Your task to perform on an android device: Search for seafood restaurants on Google Maps Image 0: 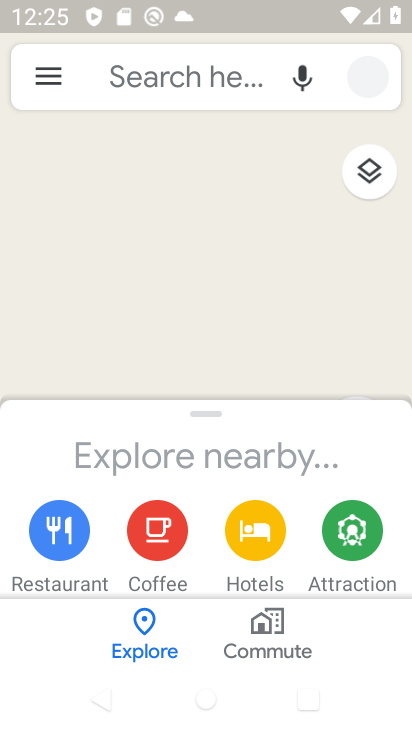
Step 0: drag from (198, 526) to (197, 92)
Your task to perform on an android device: Search for seafood restaurants on Google Maps Image 1: 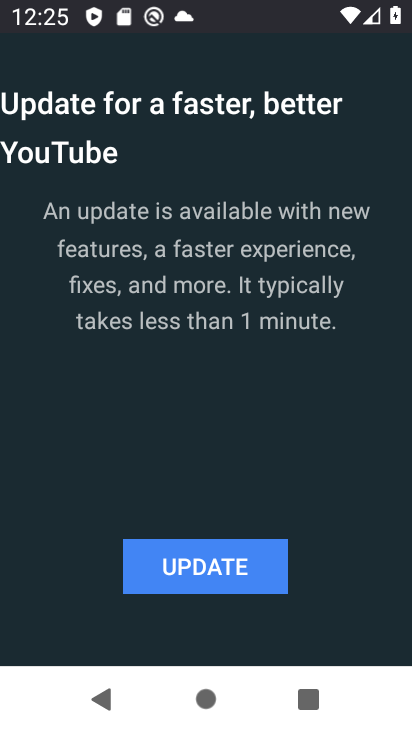
Step 1: press home button
Your task to perform on an android device: Search for seafood restaurants on Google Maps Image 2: 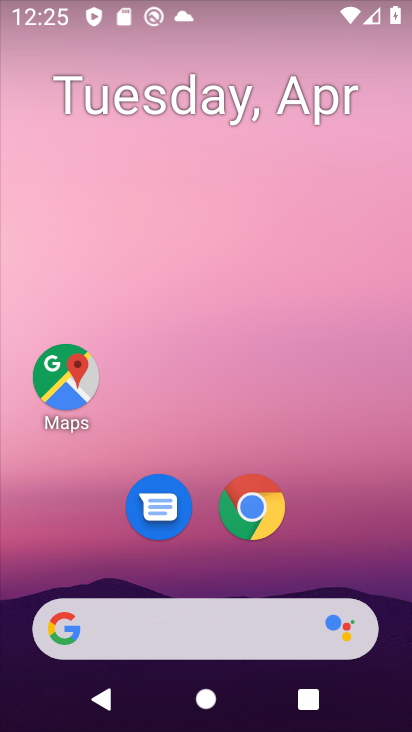
Step 2: click (48, 382)
Your task to perform on an android device: Search for seafood restaurants on Google Maps Image 3: 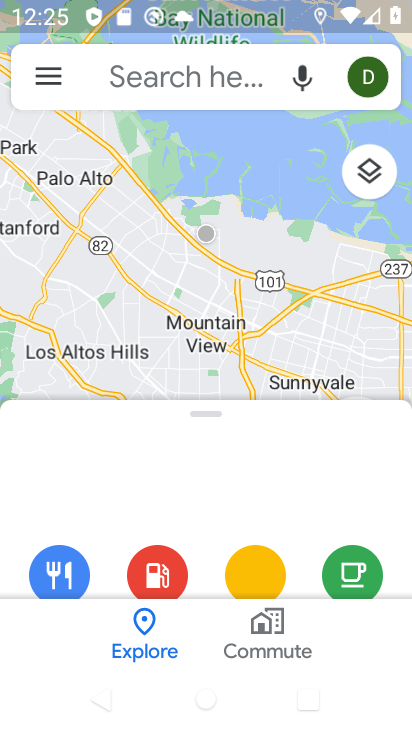
Step 3: click (170, 75)
Your task to perform on an android device: Search for seafood restaurants on Google Maps Image 4: 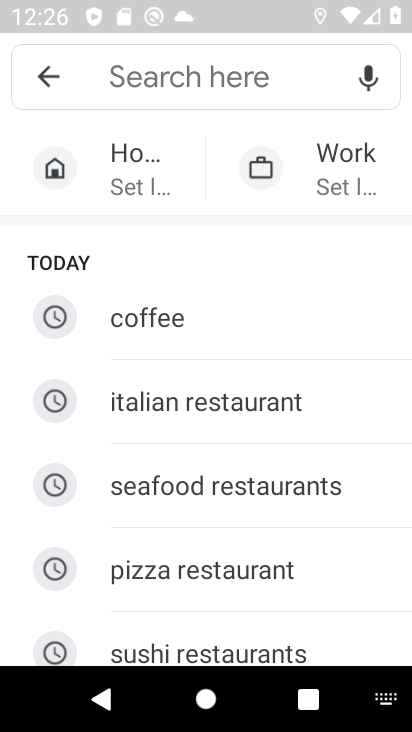
Step 4: click (188, 486)
Your task to perform on an android device: Search for seafood restaurants on Google Maps Image 5: 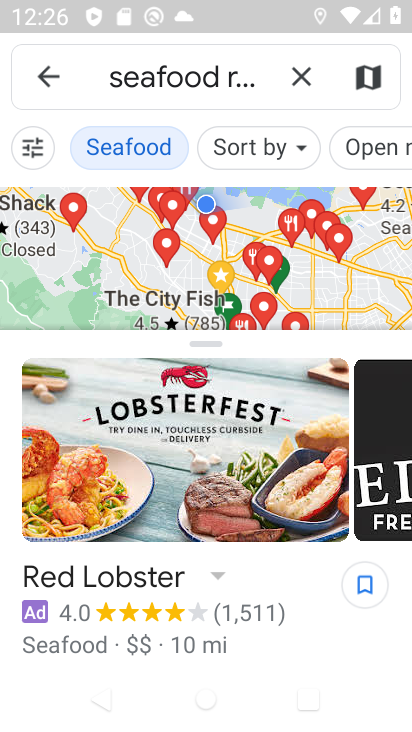
Step 5: task complete